Your task to perform on an android device: Is it going to rain today? Image 0: 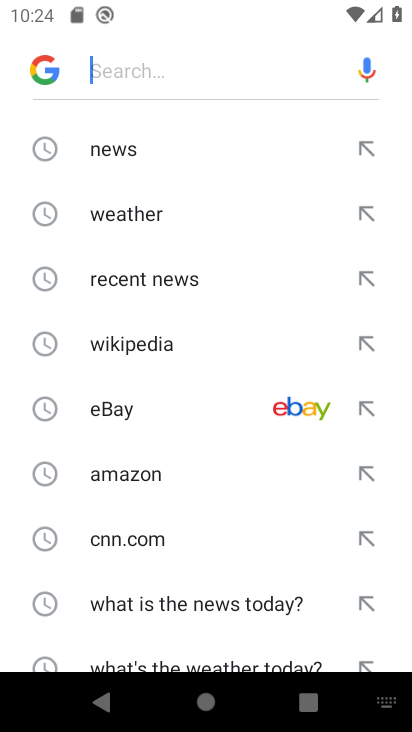
Step 0: press home button
Your task to perform on an android device: Is it going to rain today? Image 1: 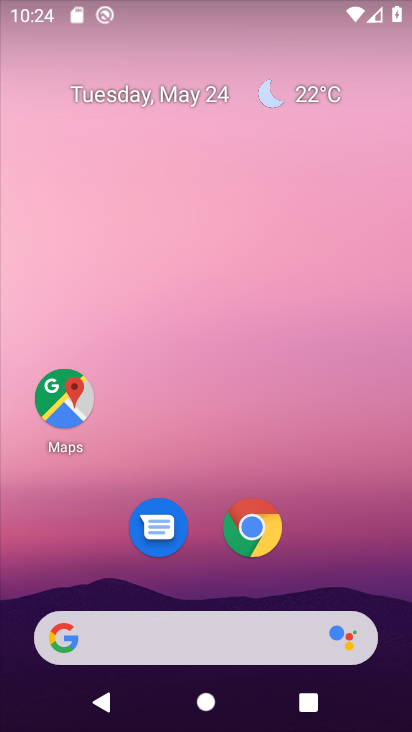
Step 1: click (303, 92)
Your task to perform on an android device: Is it going to rain today? Image 2: 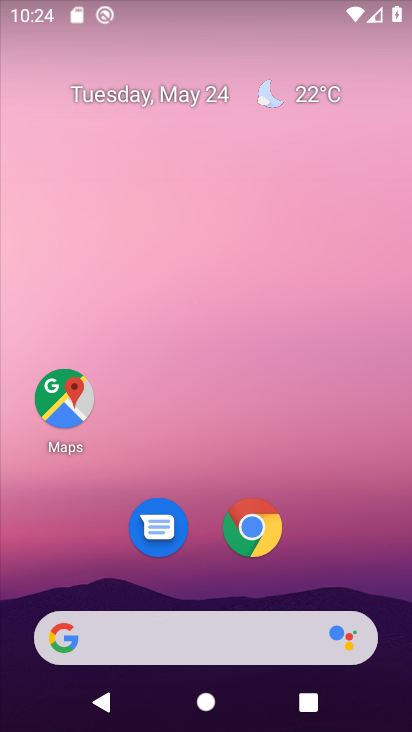
Step 2: click (312, 99)
Your task to perform on an android device: Is it going to rain today? Image 3: 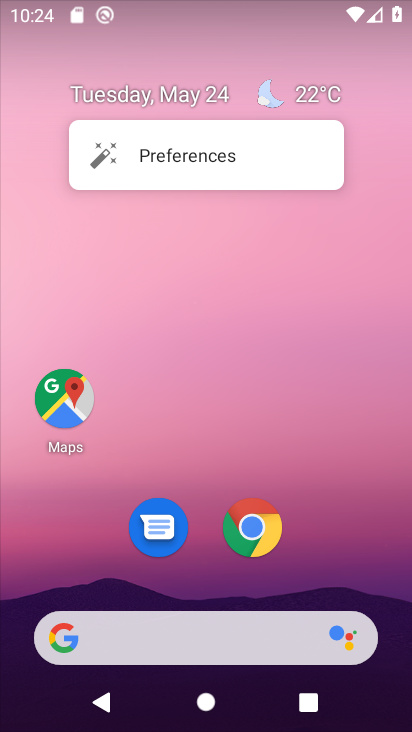
Step 3: click (316, 92)
Your task to perform on an android device: Is it going to rain today? Image 4: 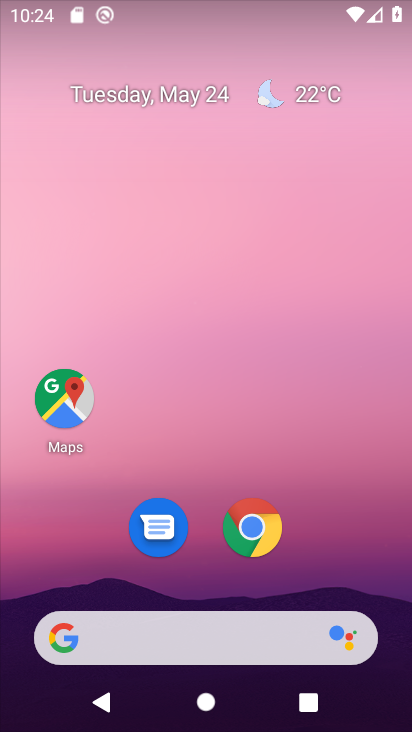
Step 4: click (330, 90)
Your task to perform on an android device: Is it going to rain today? Image 5: 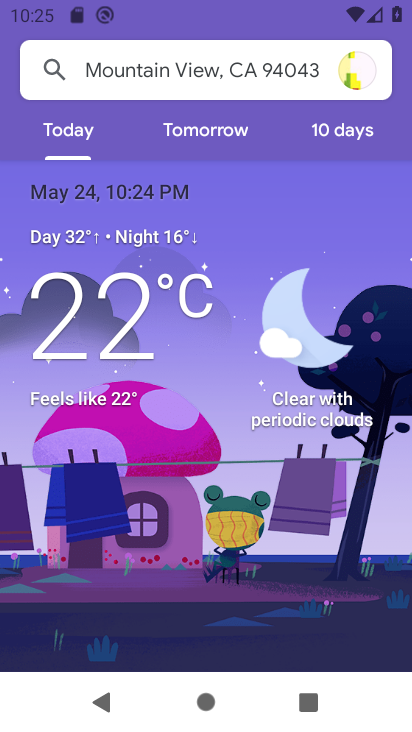
Step 5: task complete